Your task to perform on an android device: toggle location history Image 0: 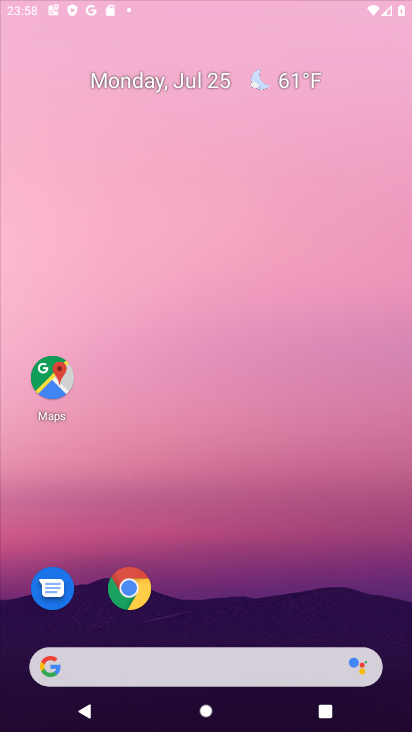
Step 0: press home button
Your task to perform on an android device: toggle location history Image 1: 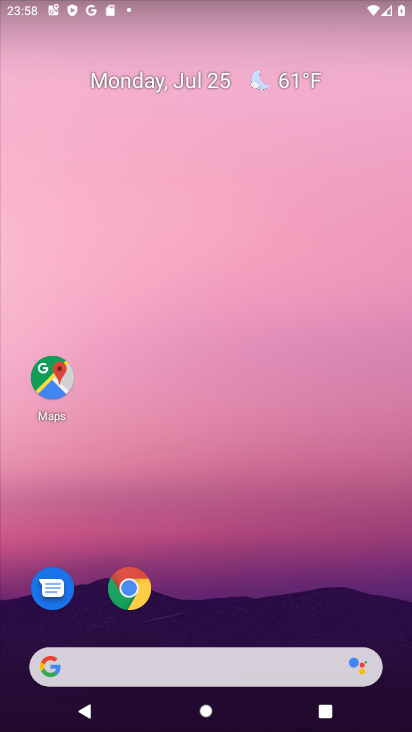
Step 1: click (53, 371)
Your task to perform on an android device: toggle location history Image 2: 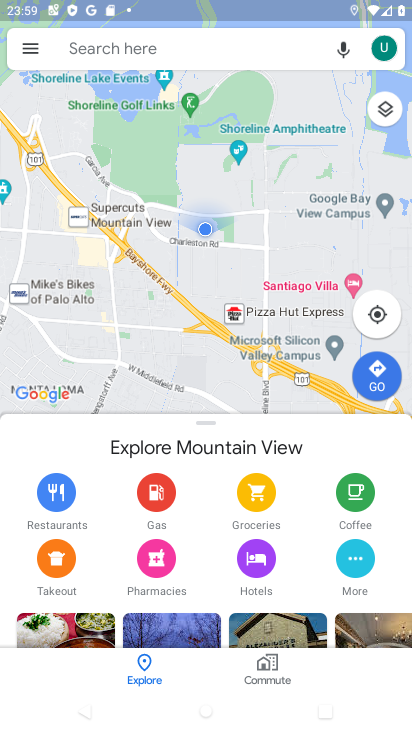
Step 2: click (26, 43)
Your task to perform on an android device: toggle location history Image 3: 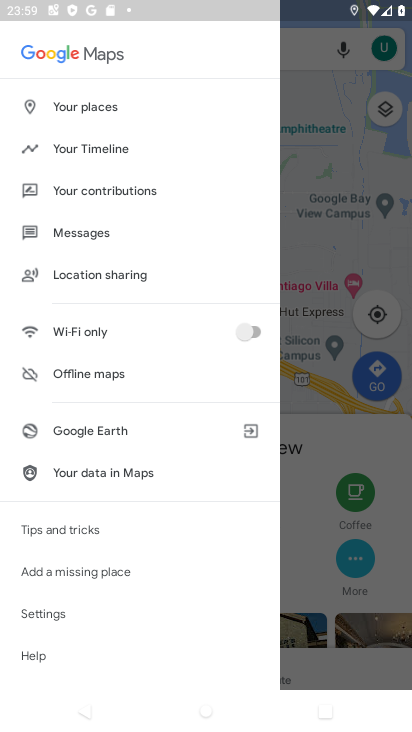
Step 3: press home button
Your task to perform on an android device: toggle location history Image 4: 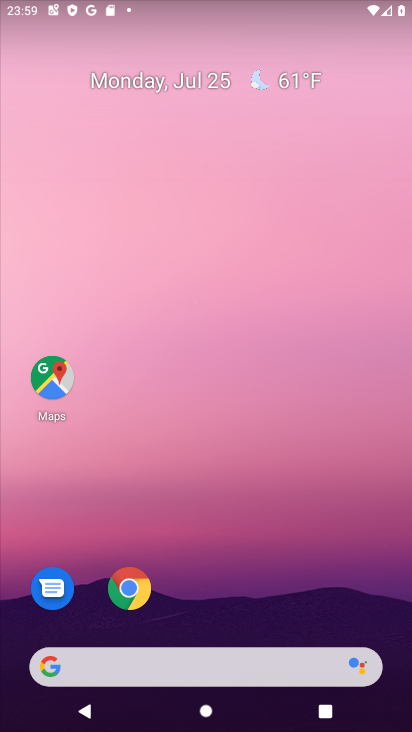
Step 4: drag from (212, 619) to (134, 24)
Your task to perform on an android device: toggle location history Image 5: 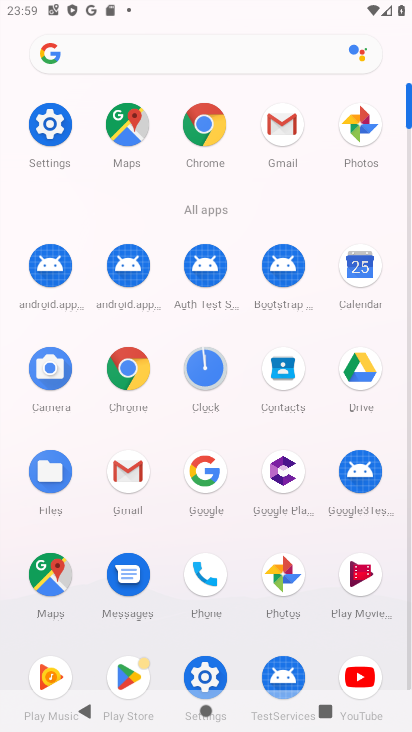
Step 5: click (49, 119)
Your task to perform on an android device: toggle location history Image 6: 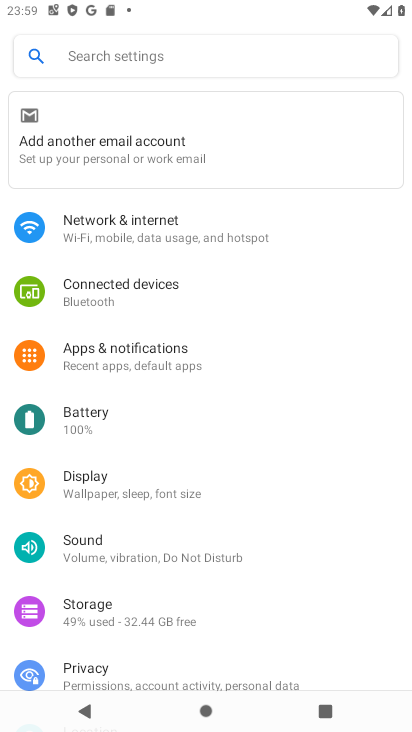
Step 6: drag from (147, 645) to (131, 215)
Your task to perform on an android device: toggle location history Image 7: 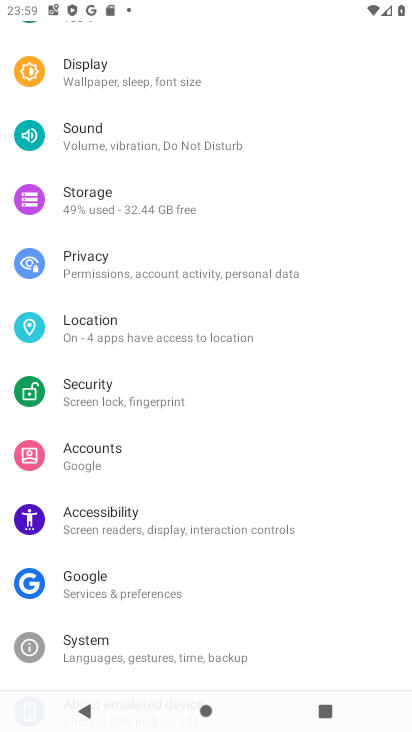
Step 7: click (128, 321)
Your task to perform on an android device: toggle location history Image 8: 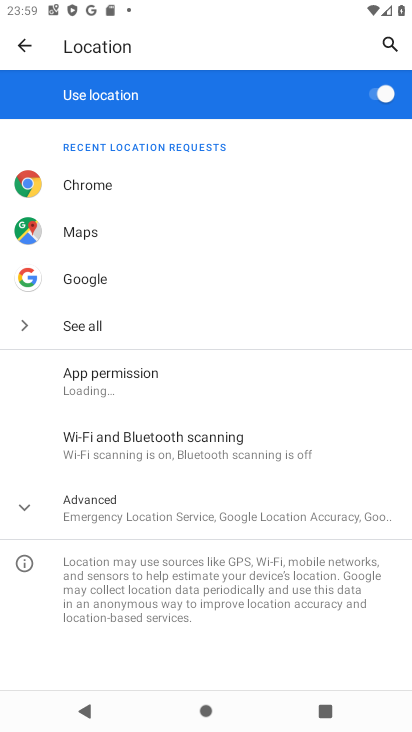
Step 8: click (22, 505)
Your task to perform on an android device: toggle location history Image 9: 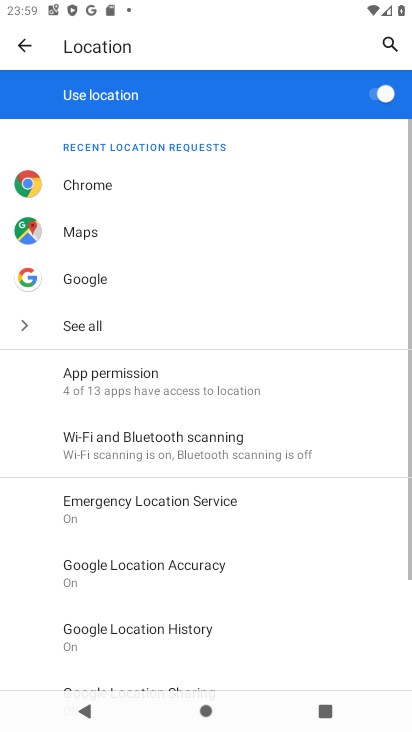
Step 9: click (229, 628)
Your task to perform on an android device: toggle location history Image 10: 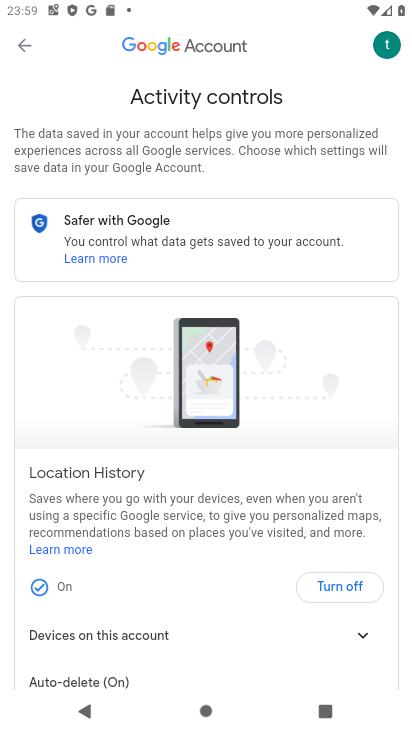
Step 10: click (336, 585)
Your task to perform on an android device: toggle location history Image 11: 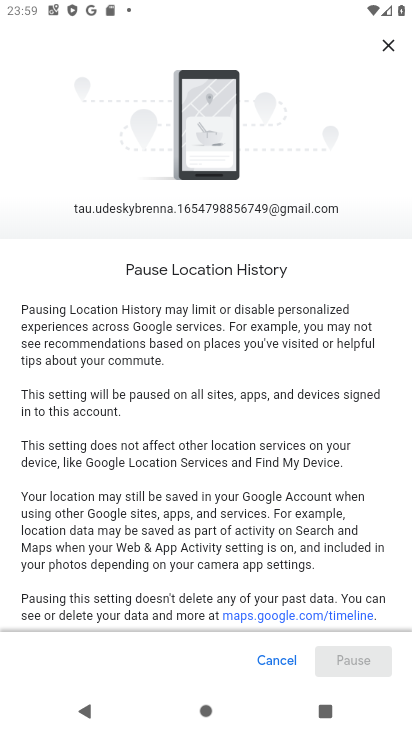
Step 11: drag from (272, 578) to (267, 147)
Your task to perform on an android device: toggle location history Image 12: 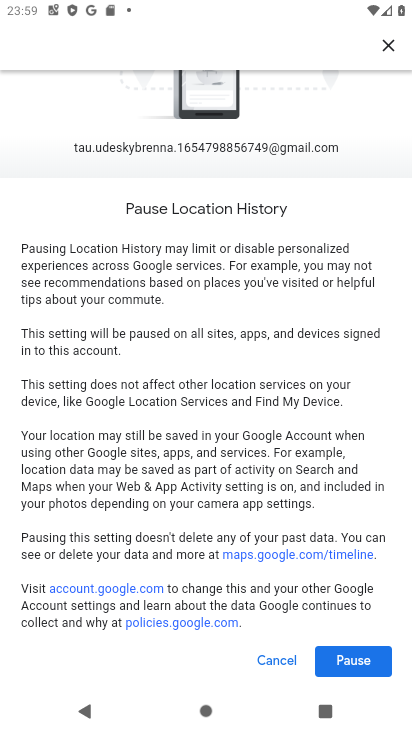
Step 12: click (361, 667)
Your task to perform on an android device: toggle location history Image 13: 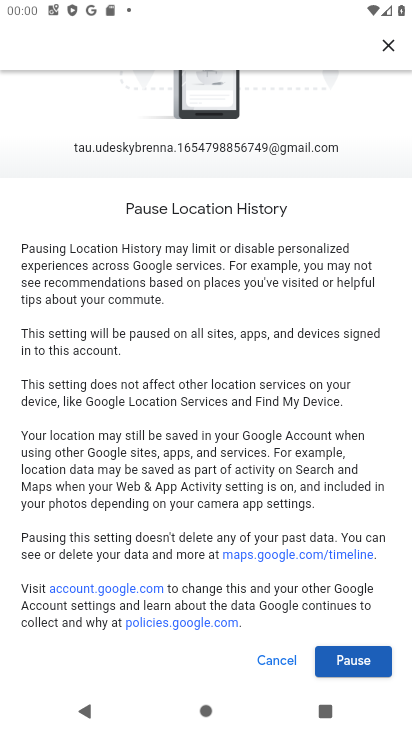
Step 13: click (361, 662)
Your task to perform on an android device: toggle location history Image 14: 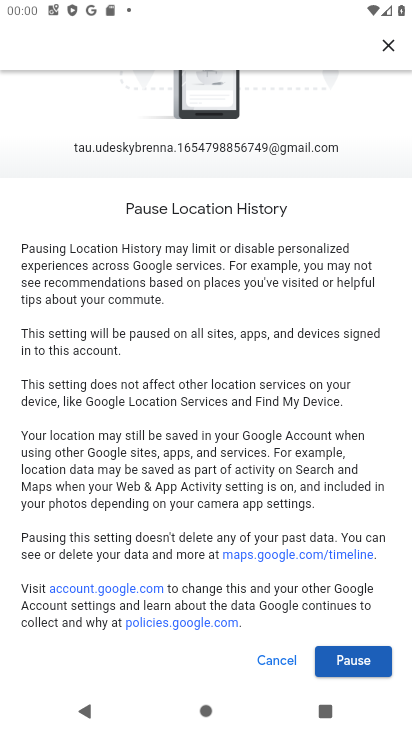
Step 14: click (350, 657)
Your task to perform on an android device: toggle location history Image 15: 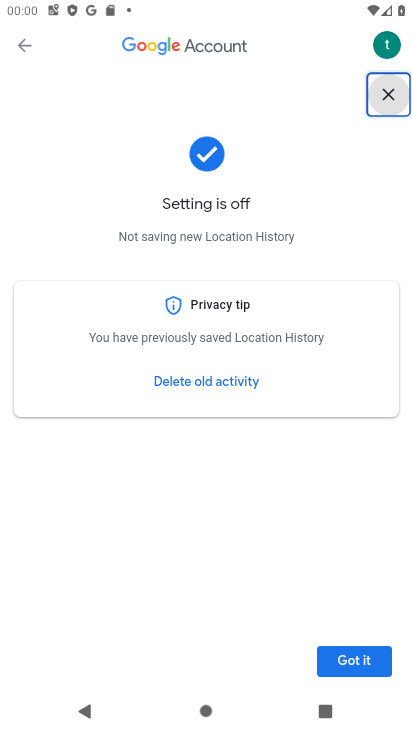
Step 15: task complete